Your task to perform on an android device: change text size in settings app Image 0: 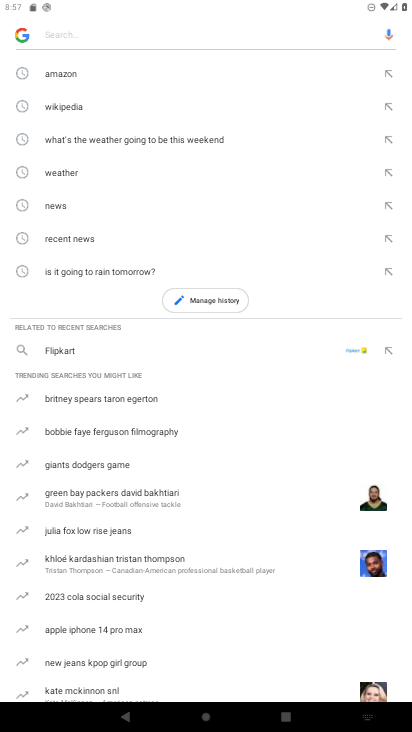
Step 0: press home button
Your task to perform on an android device: change text size in settings app Image 1: 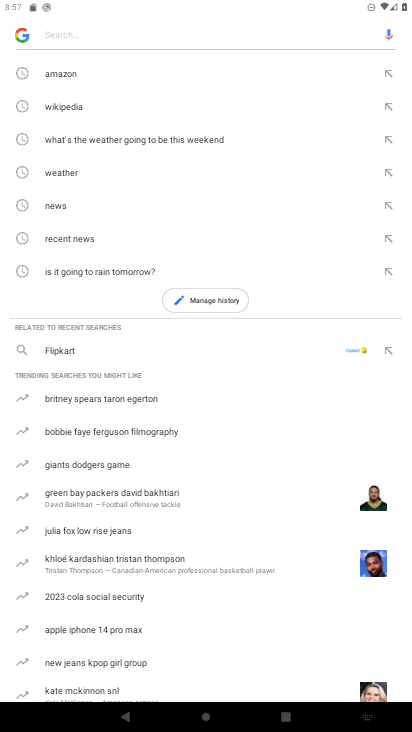
Step 1: drag from (391, 652) to (148, 32)
Your task to perform on an android device: change text size in settings app Image 2: 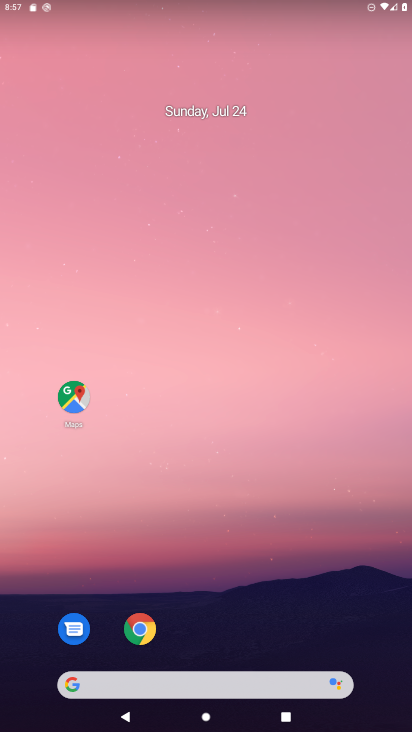
Step 2: drag from (301, 613) to (6, 75)
Your task to perform on an android device: change text size in settings app Image 3: 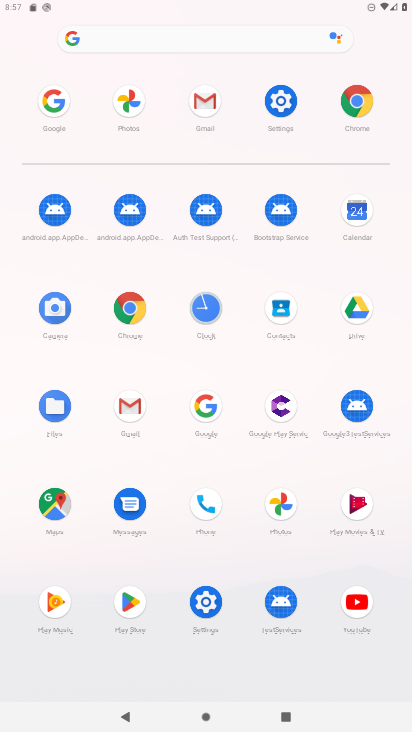
Step 3: click (193, 601)
Your task to perform on an android device: change text size in settings app Image 4: 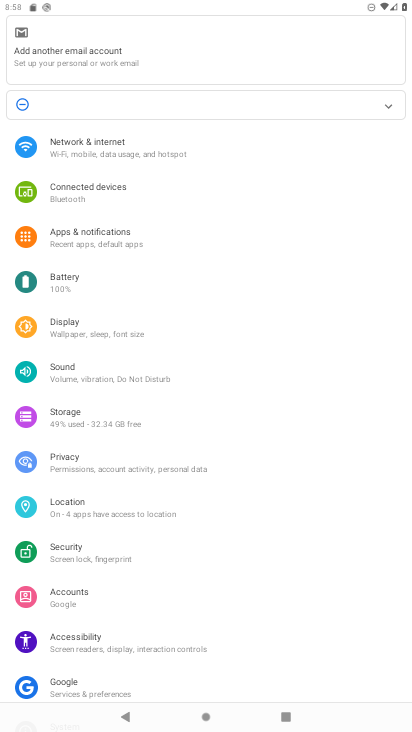
Step 4: click (81, 339)
Your task to perform on an android device: change text size in settings app Image 5: 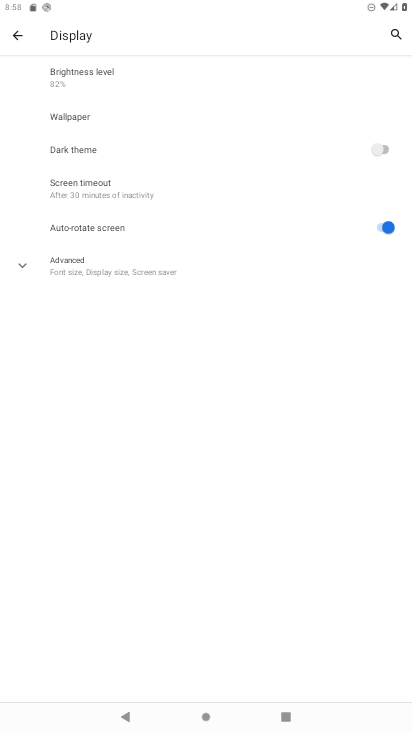
Step 5: click (54, 273)
Your task to perform on an android device: change text size in settings app Image 6: 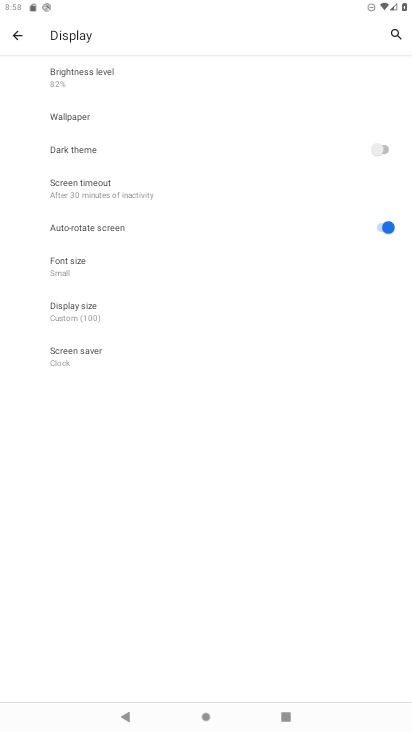
Step 6: click (54, 273)
Your task to perform on an android device: change text size in settings app Image 7: 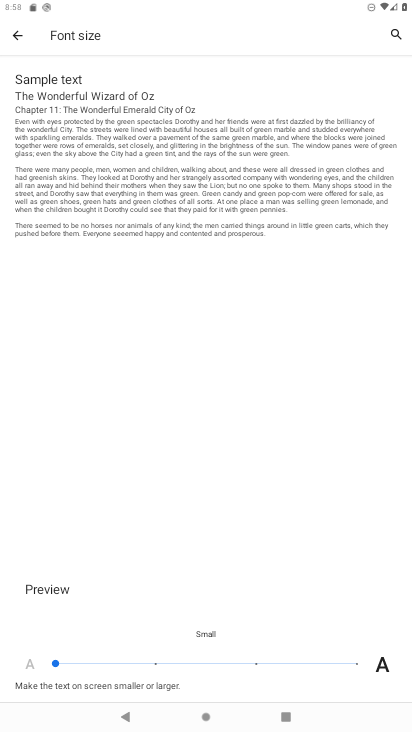
Step 7: click (355, 662)
Your task to perform on an android device: change text size in settings app Image 8: 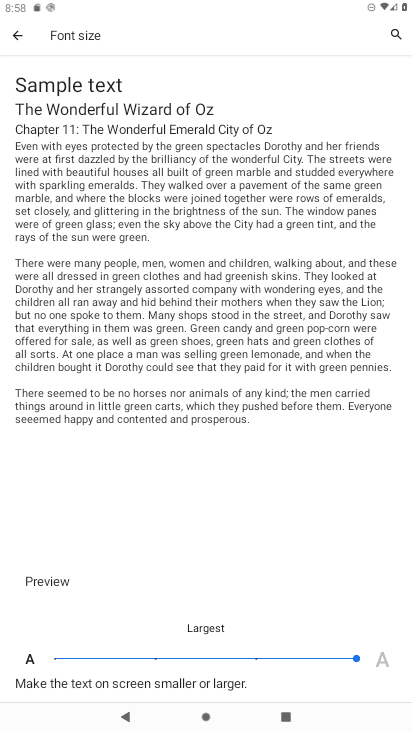
Step 8: task complete